Your task to perform on an android device: What's the weather today? Image 0: 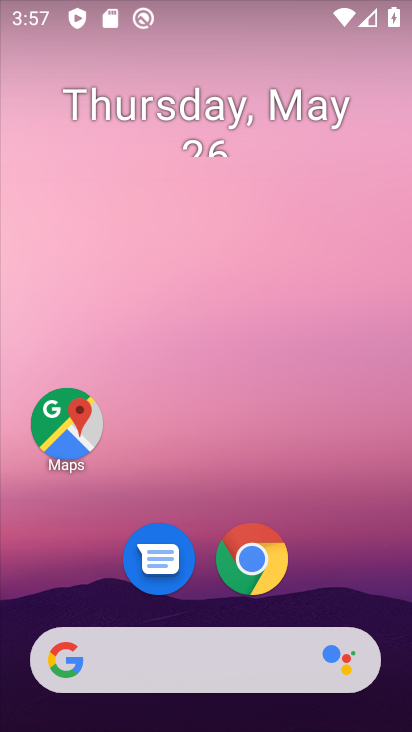
Step 0: click (231, 37)
Your task to perform on an android device: What's the weather today? Image 1: 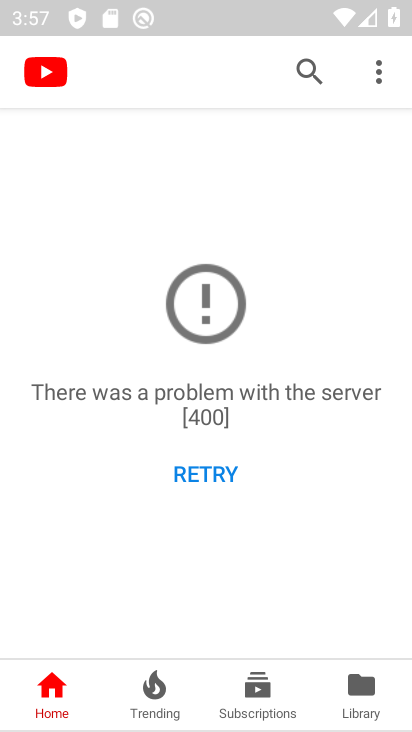
Step 1: press home button
Your task to perform on an android device: What's the weather today? Image 2: 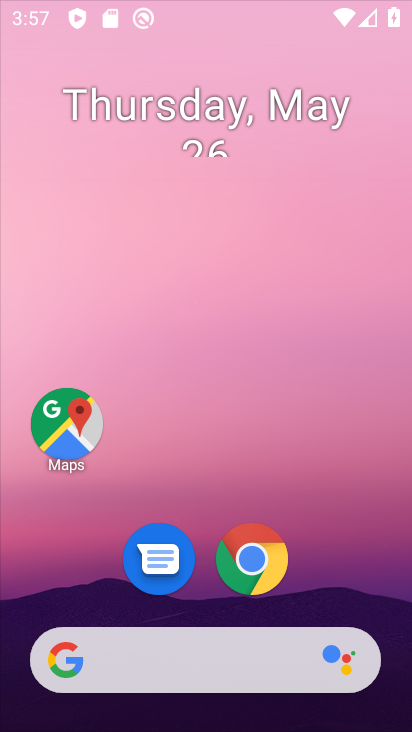
Step 2: drag from (297, 409) to (207, 2)
Your task to perform on an android device: What's the weather today? Image 3: 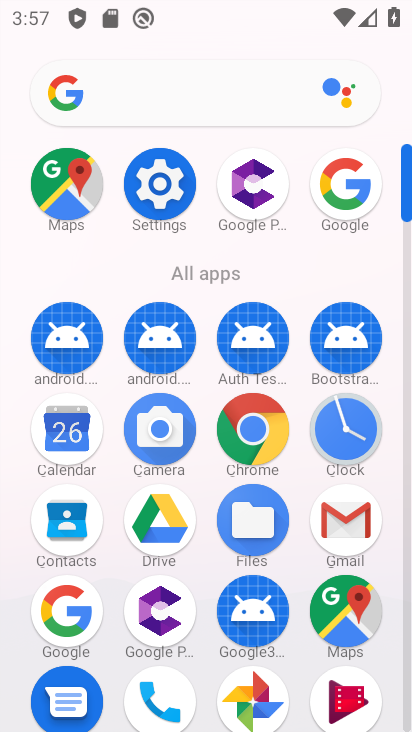
Step 3: click (73, 607)
Your task to perform on an android device: What's the weather today? Image 4: 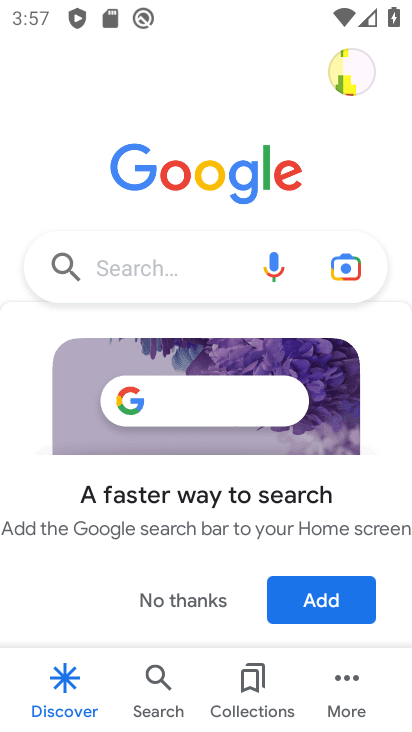
Step 4: click (158, 261)
Your task to perform on an android device: What's the weather today? Image 5: 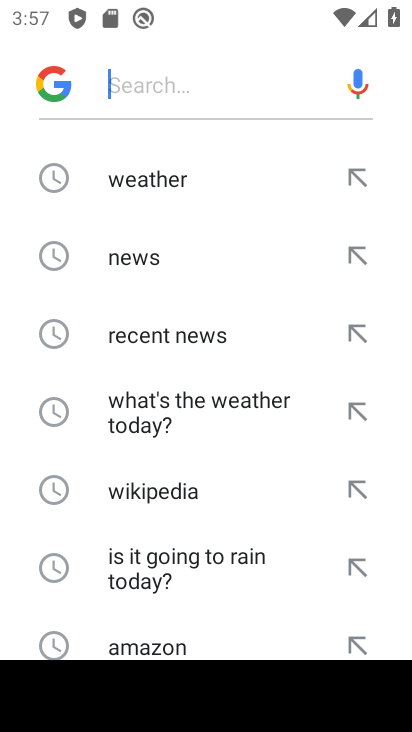
Step 5: click (168, 172)
Your task to perform on an android device: What's the weather today? Image 6: 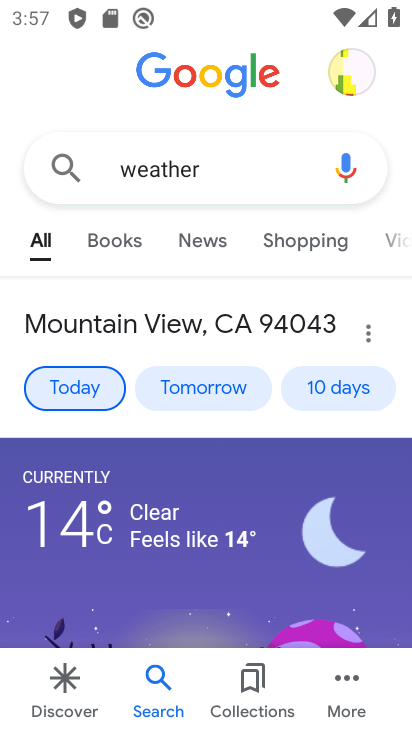
Step 6: task complete